Your task to perform on an android device: check the backup settings in the google photos Image 0: 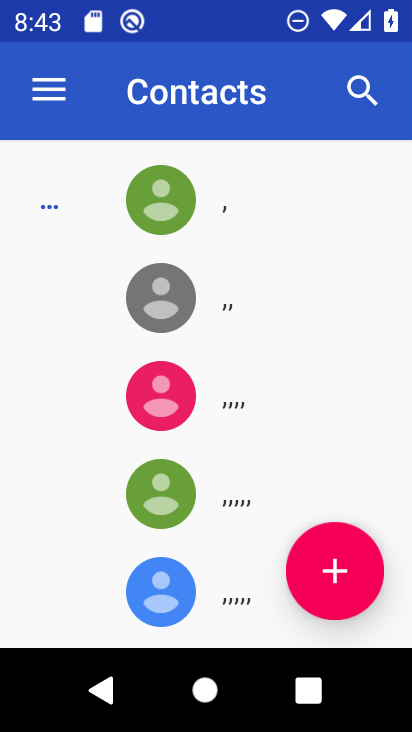
Step 0: press home button
Your task to perform on an android device: check the backup settings in the google photos Image 1: 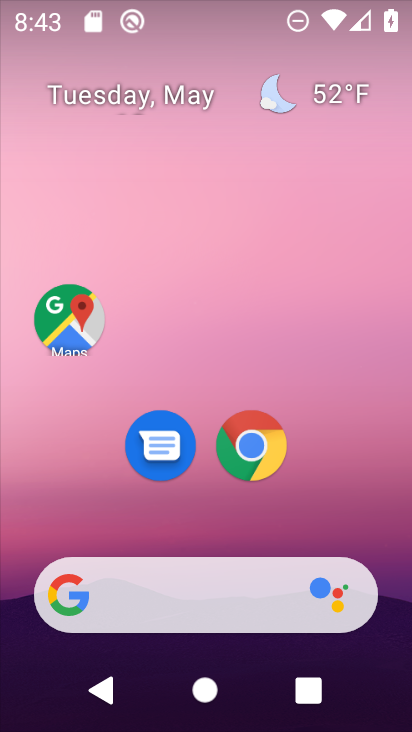
Step 1: drag from (273, 514) to (321, 290)
Your task to perform on an android device: check the backup settings in the google photos Image 2: 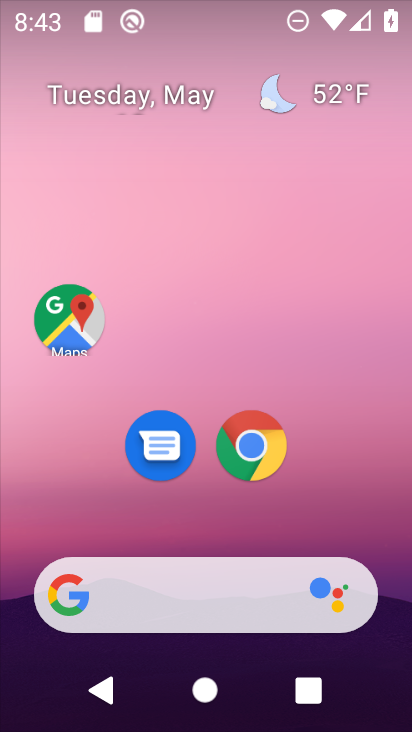
Step 2: drag from (315, 472) to (309, 188)
Your task to perform on an android device: check the backup settings in the google photos Image 3: 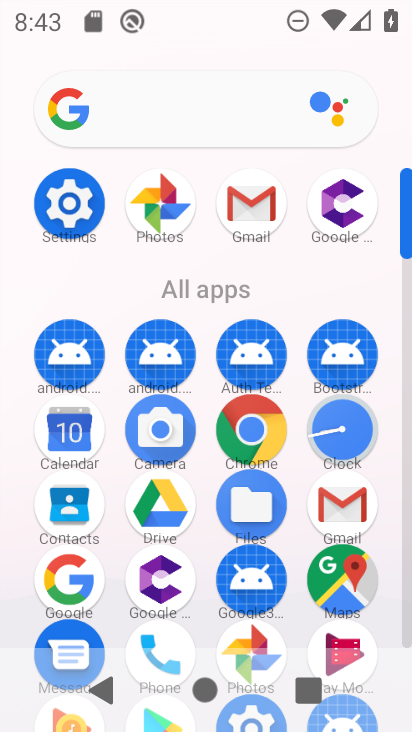
Step 3: click (252, 637)
Your task to perform on an android device: check the backup settings in the google photos Image 4: 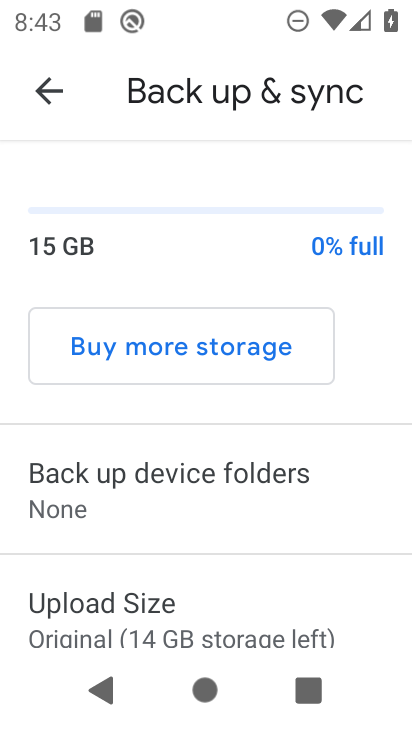
Step 4: task complete